Your task to perform on an android device: uninstall "Google Play services" Image 0: 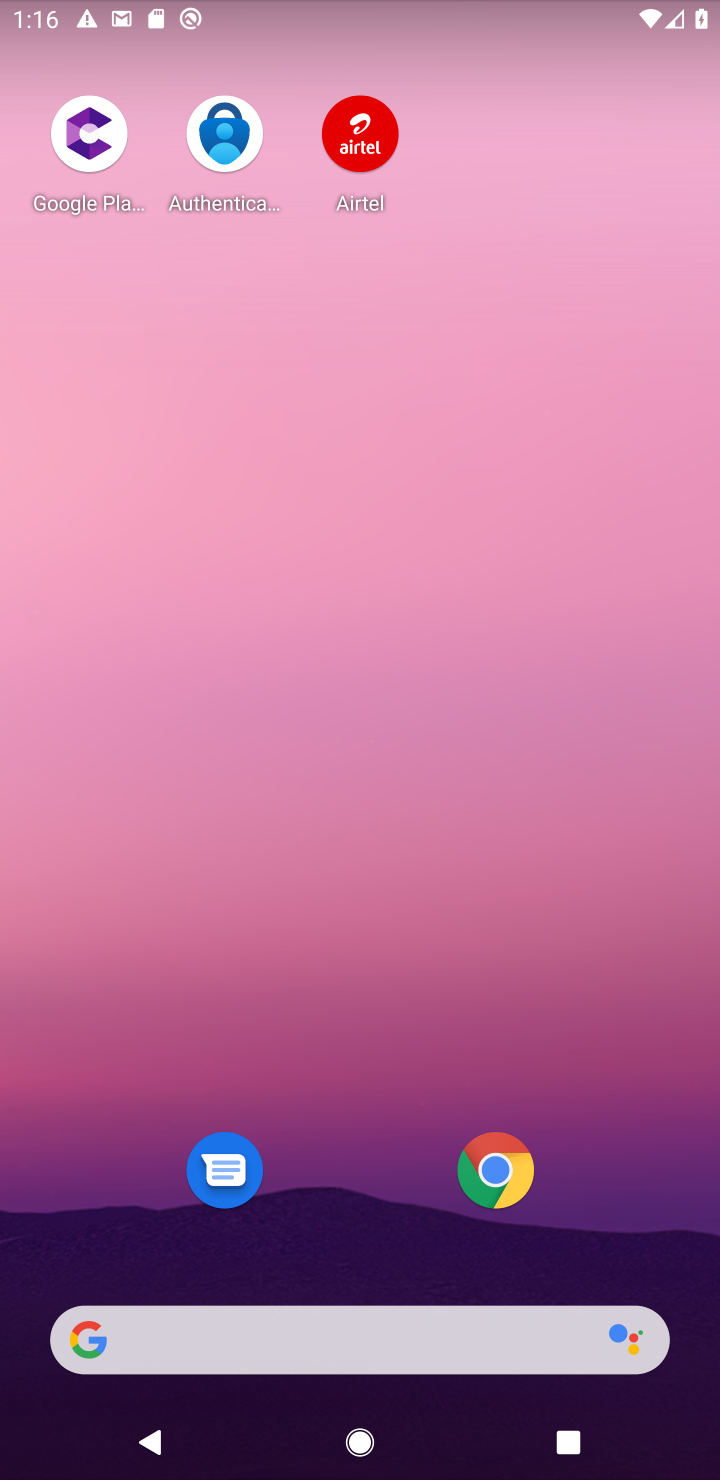
Step 0: drag from (370, 1080) to (245, 0)
Your task to perform on an android device: uninstall "Google Play services" Image 1: 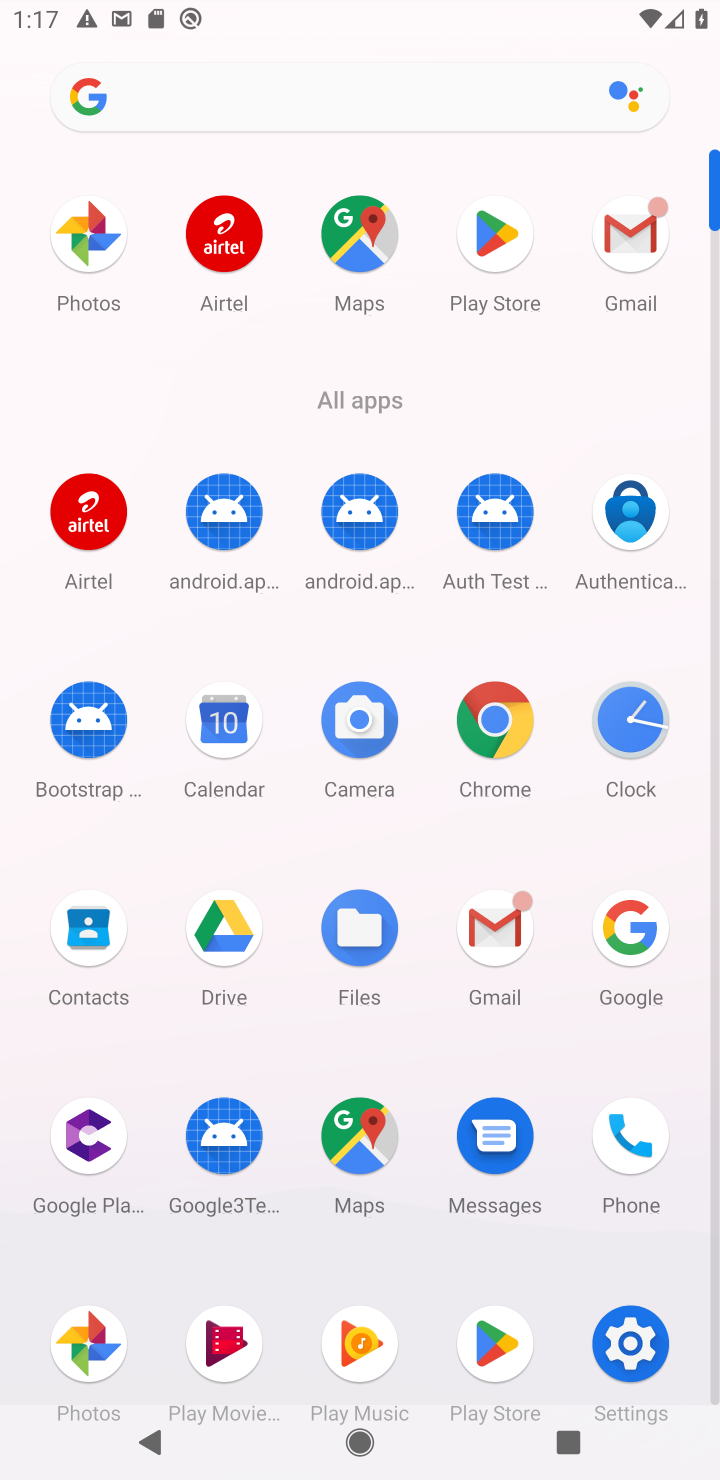
Step 1: click (502, 271)
Your task to perform on an android device: uninstall "Google Play services" Image 2: 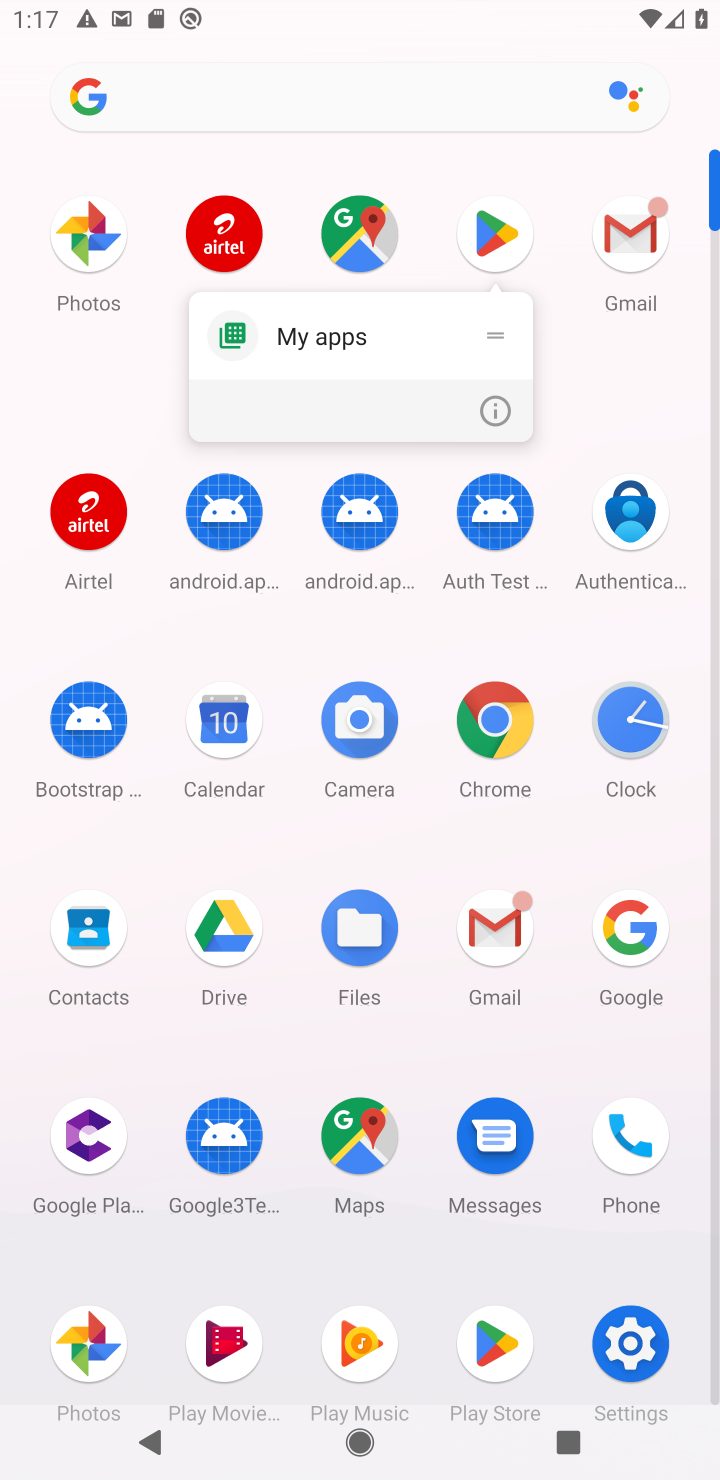
Step 2: click (502, 271)
Your task to perform on an android device: uninstall "Google Play services" Image 3: 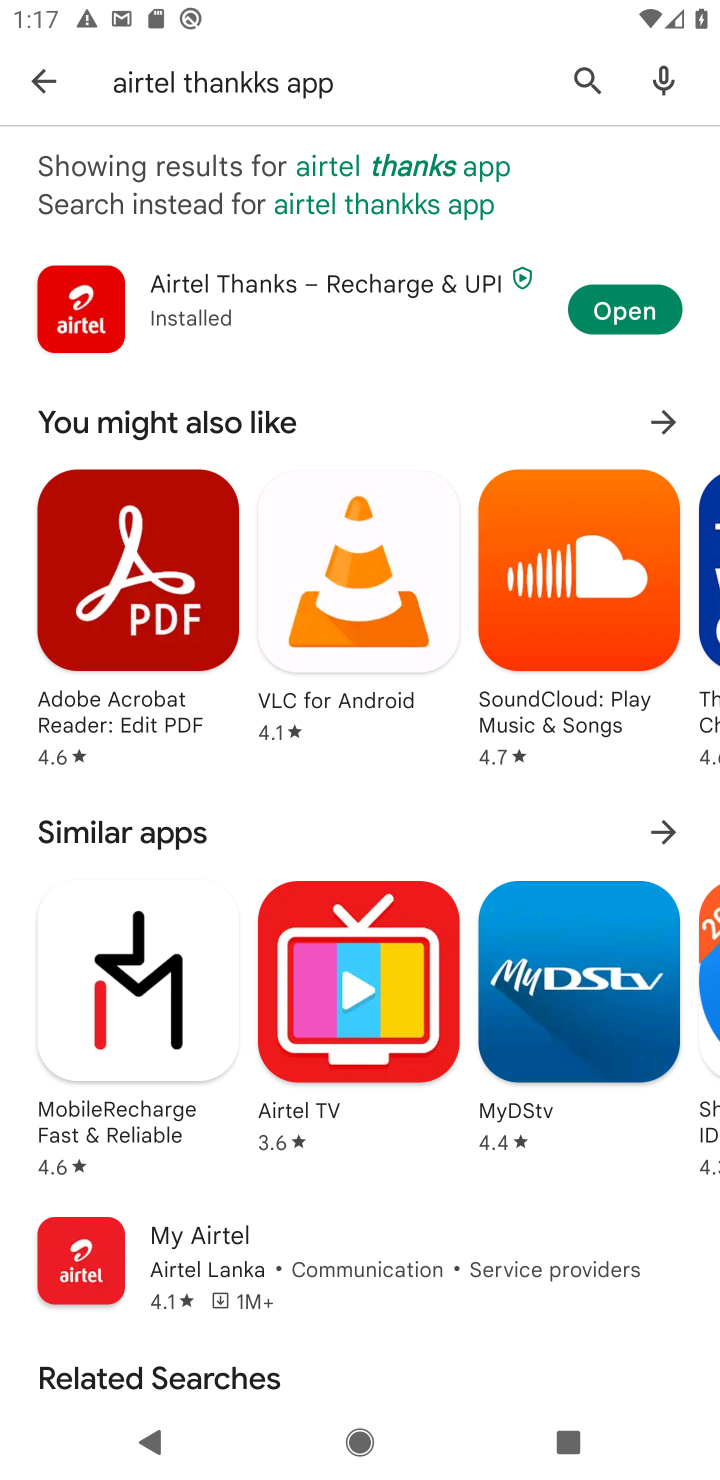
Step 3: click (582, 101)
Your task to perform on an android device: uninstall "Google Play services" Image 4: 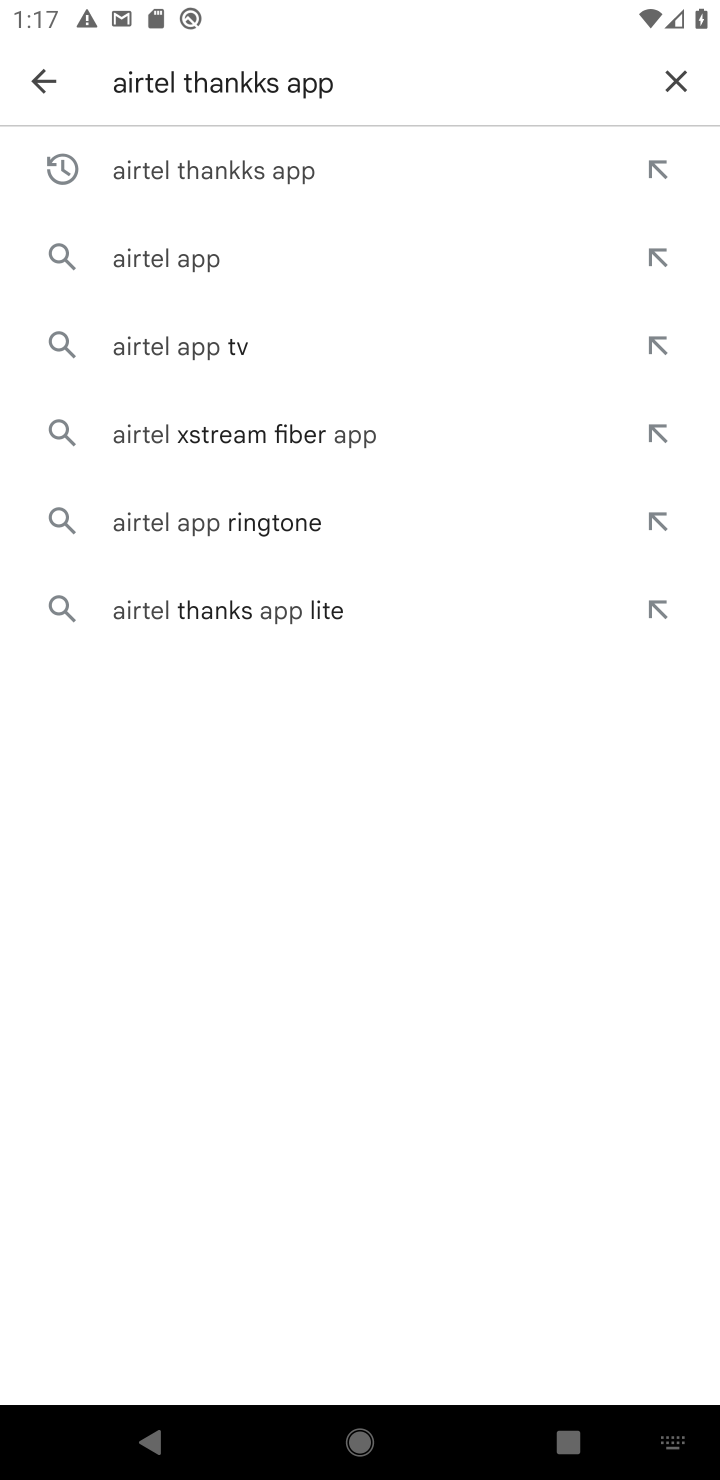
Step 4: click (682, 88)
Your task to perform on an android device: uninstall "Google Play services" Image 5: 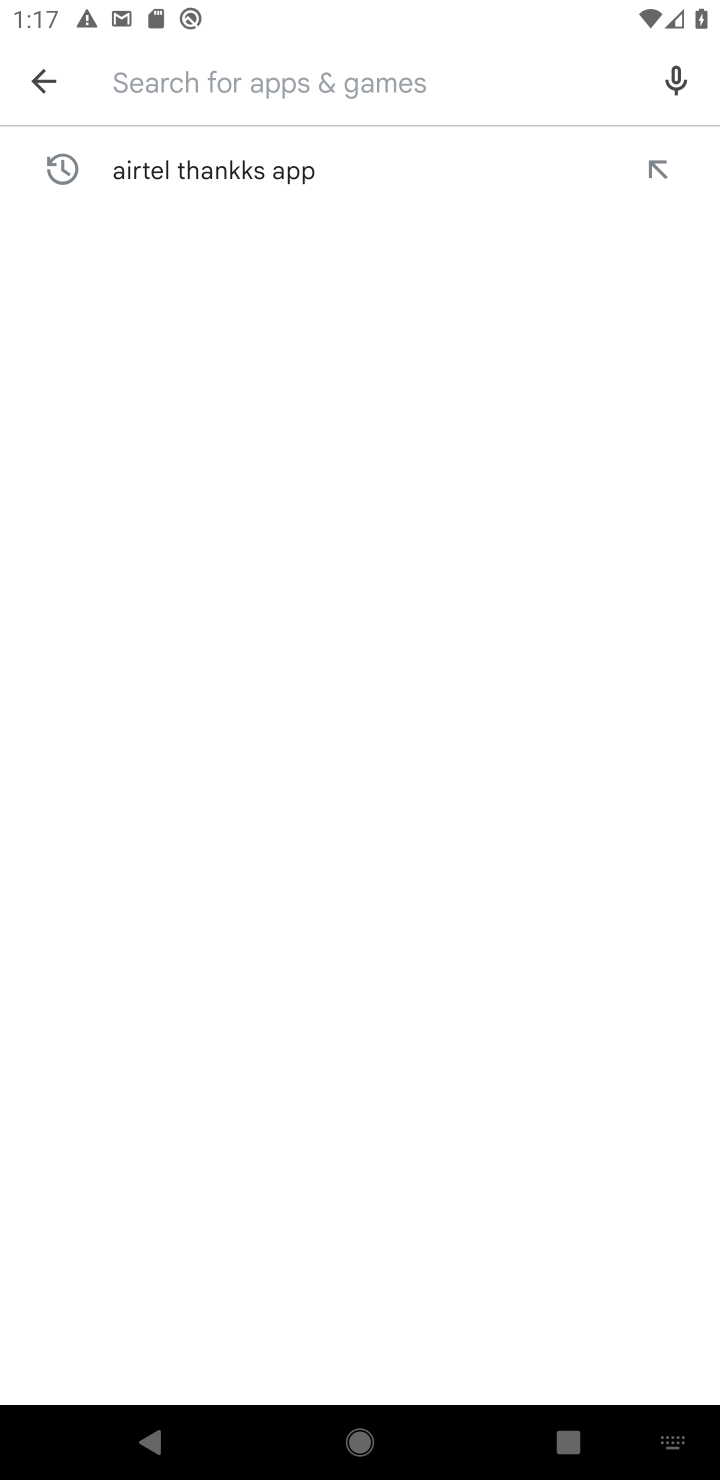
Step 5: type "Google Play services"
Your task to perform on an android device: uninstall "Google Play services" Image 6: 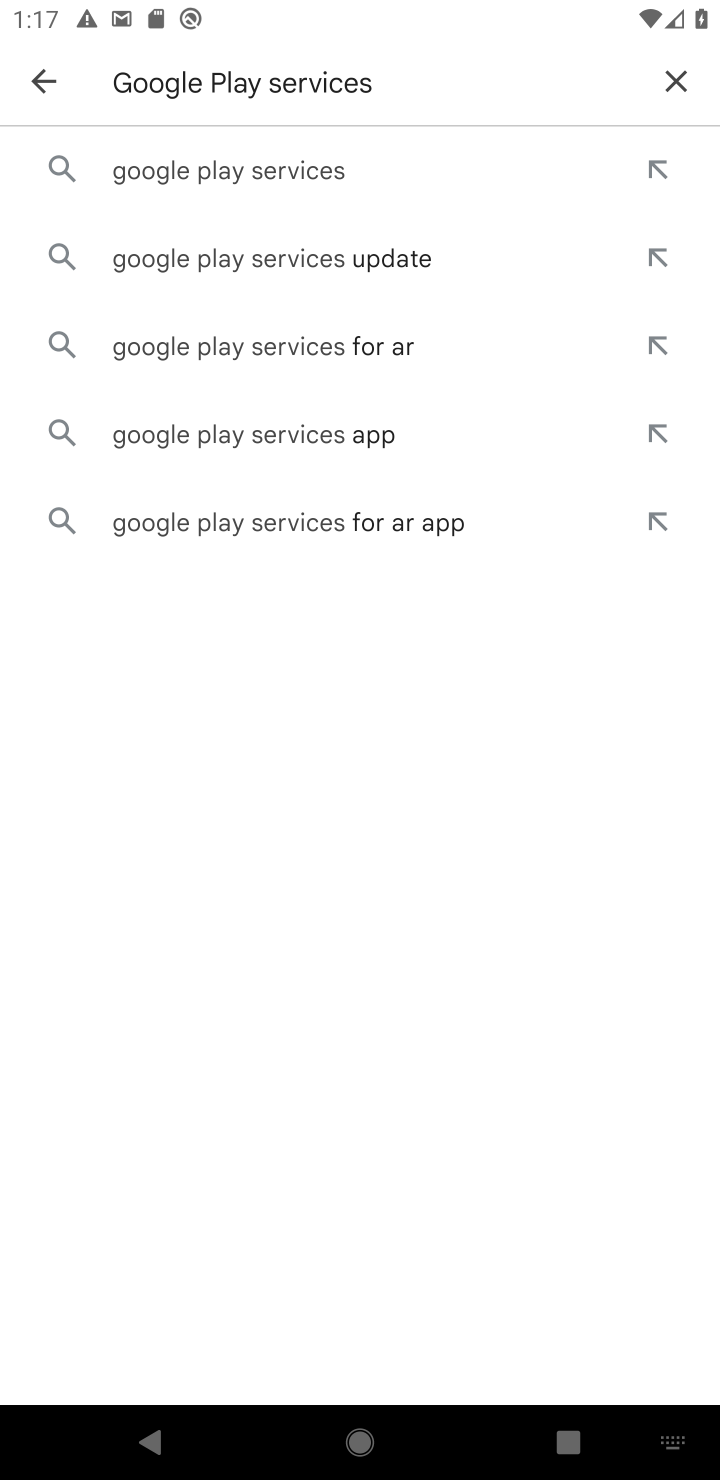
Step 6: click (313, 137)
Your task to perform on an android device: uninstall "Google Play services" Image 7: 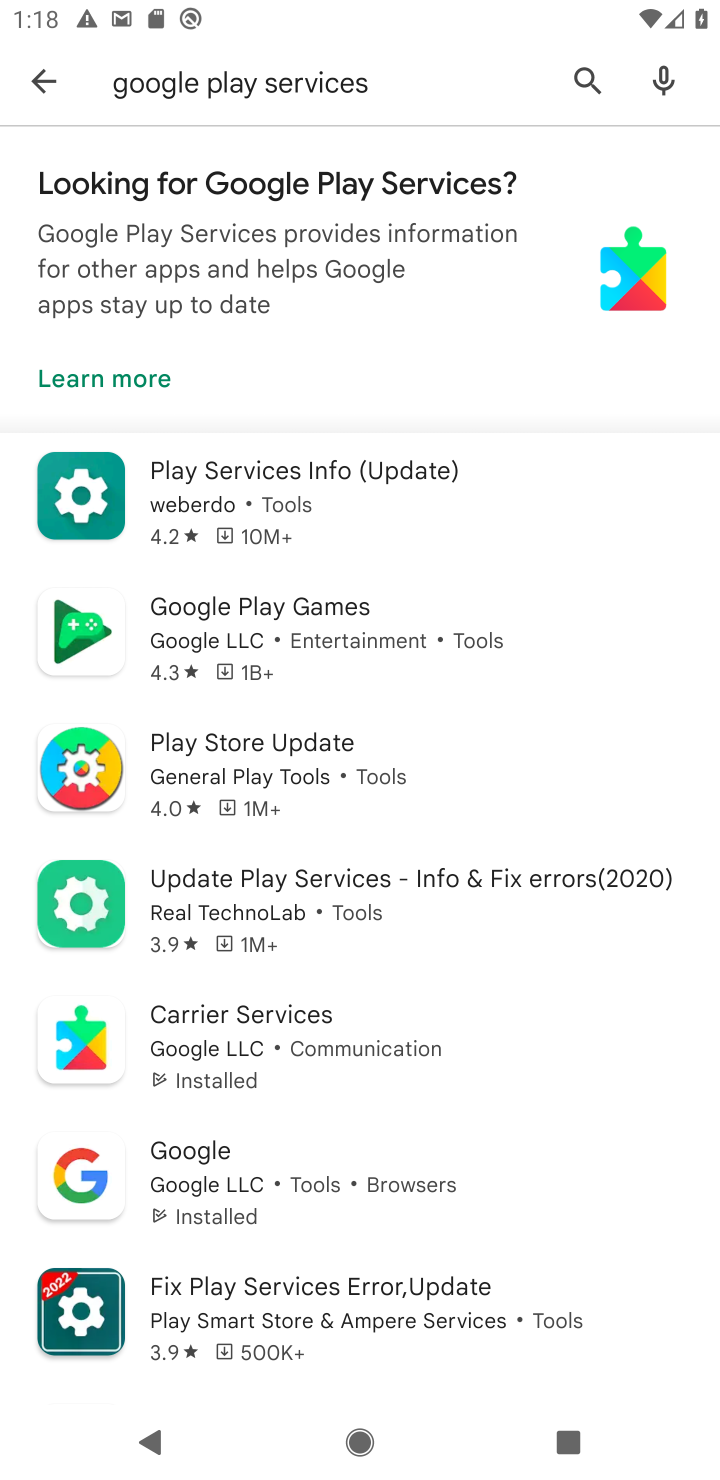
Step 7: task complete